Your task to perform on an android device: Go to sound settings Image 0: 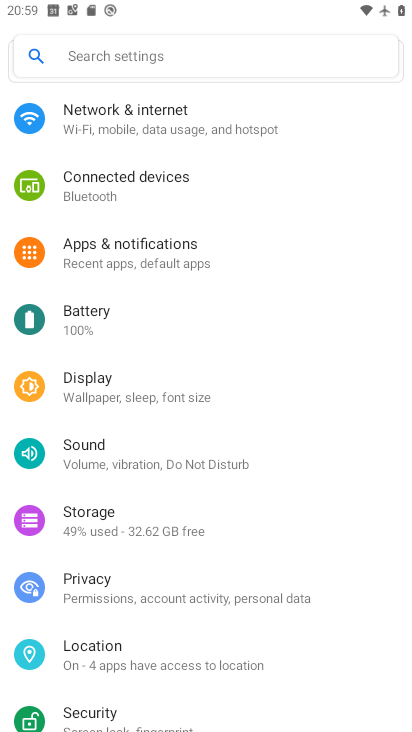
Step 0: drag from (200, 585) to (215, 436)
Your task to perform on an android device: Go to sound settings Image 1: 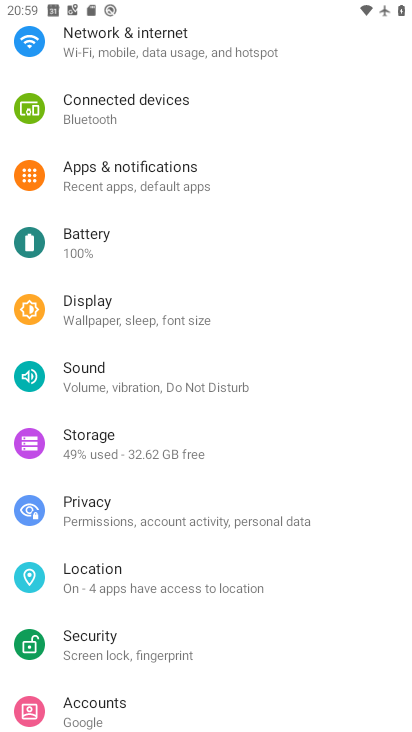
Step 1: click (208, 389)
Your task to perform on an android device: Go to sound settings Image 2: 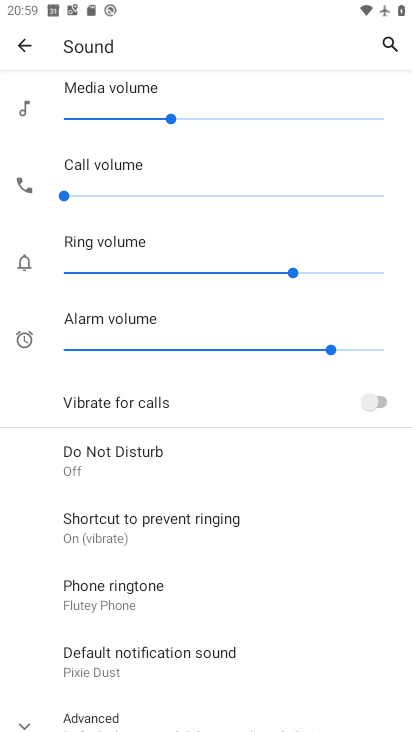
Step 2: task complete